Your task to perform on an android device: Go to Wikipedia Image 0: 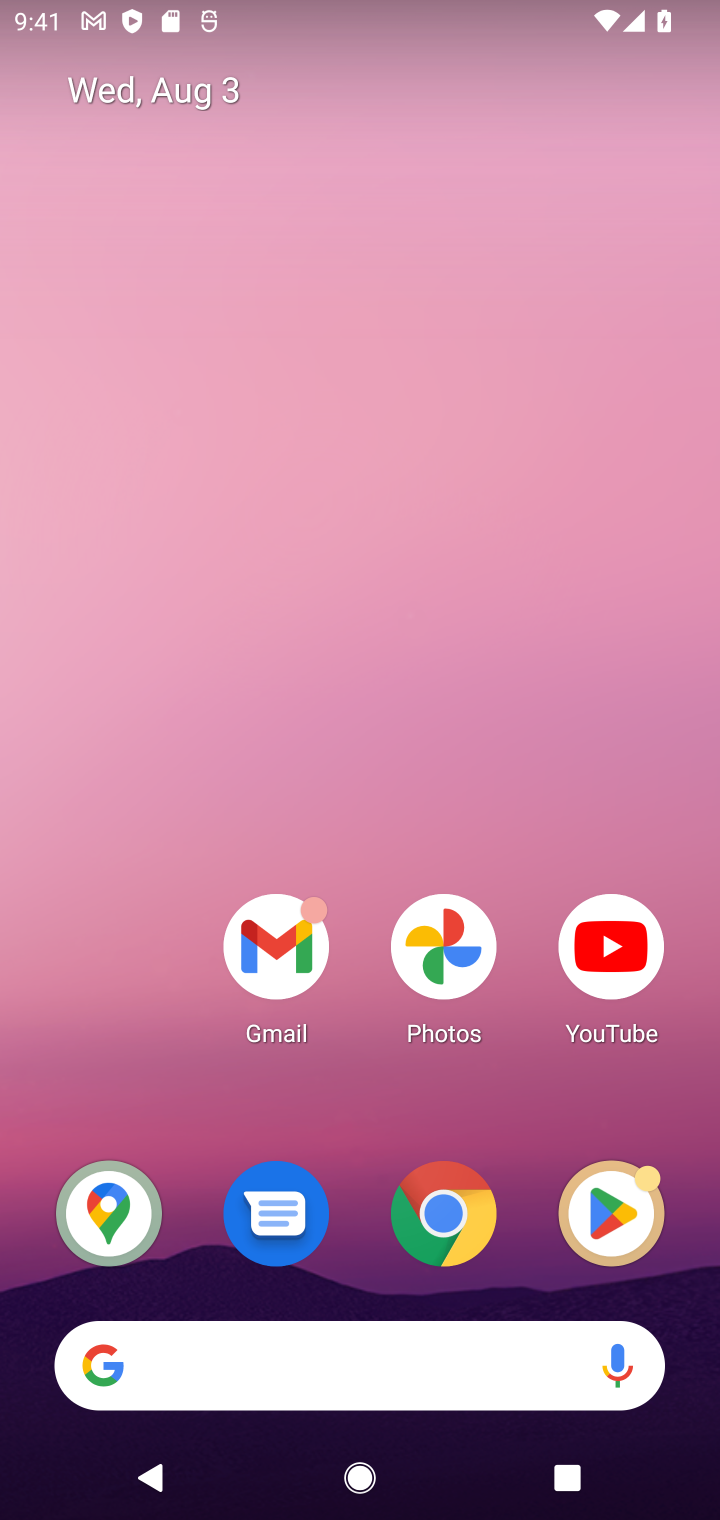
Step 0: drag from (409, 1127) to (413, 206)
Your task to perform on an android device: Go to Wikipedia Image 1: 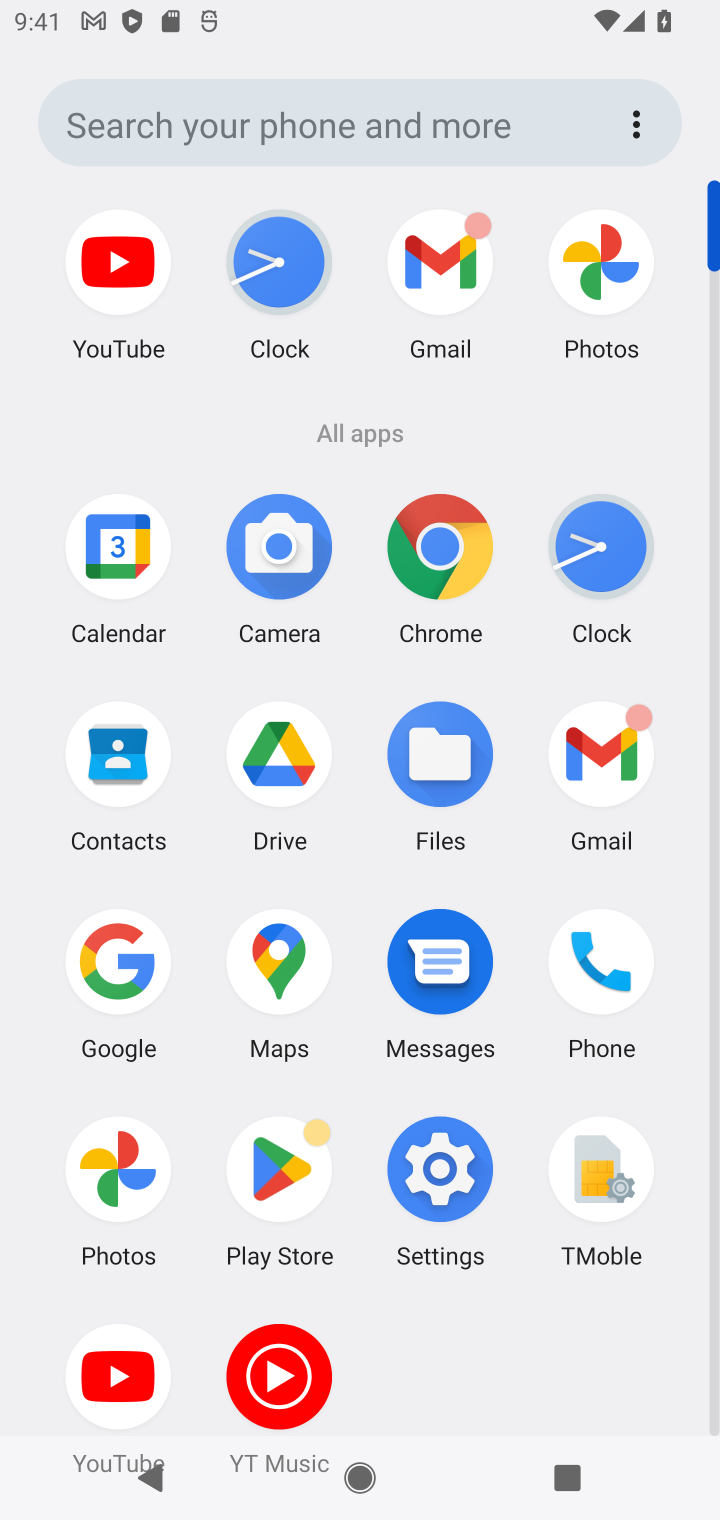
Step 1: click (453, 562)
Your task to perform on an android device: Go to Wikipedia Image 2: 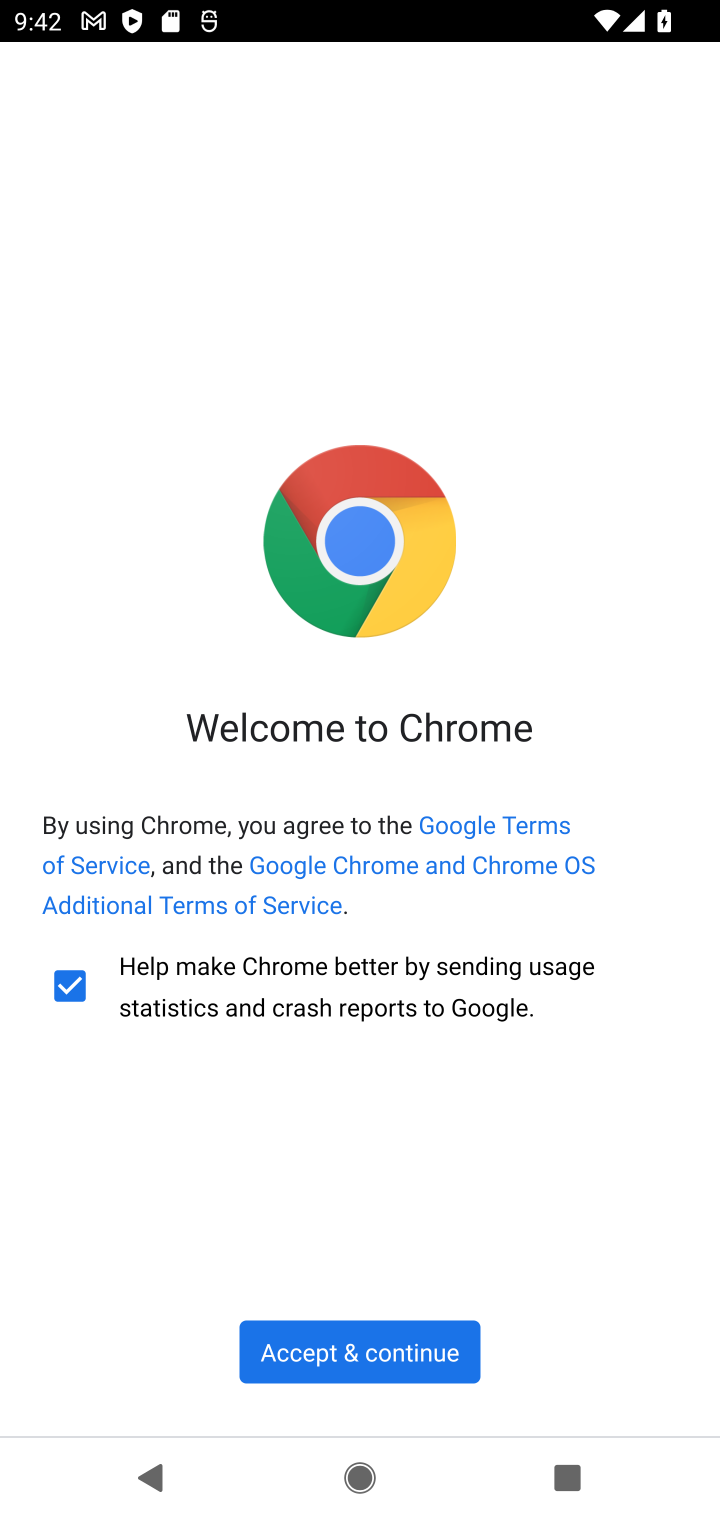
Step 2: click (330, 1326)
Your task to perform on an android device: Go to Wikipedia Image 3: 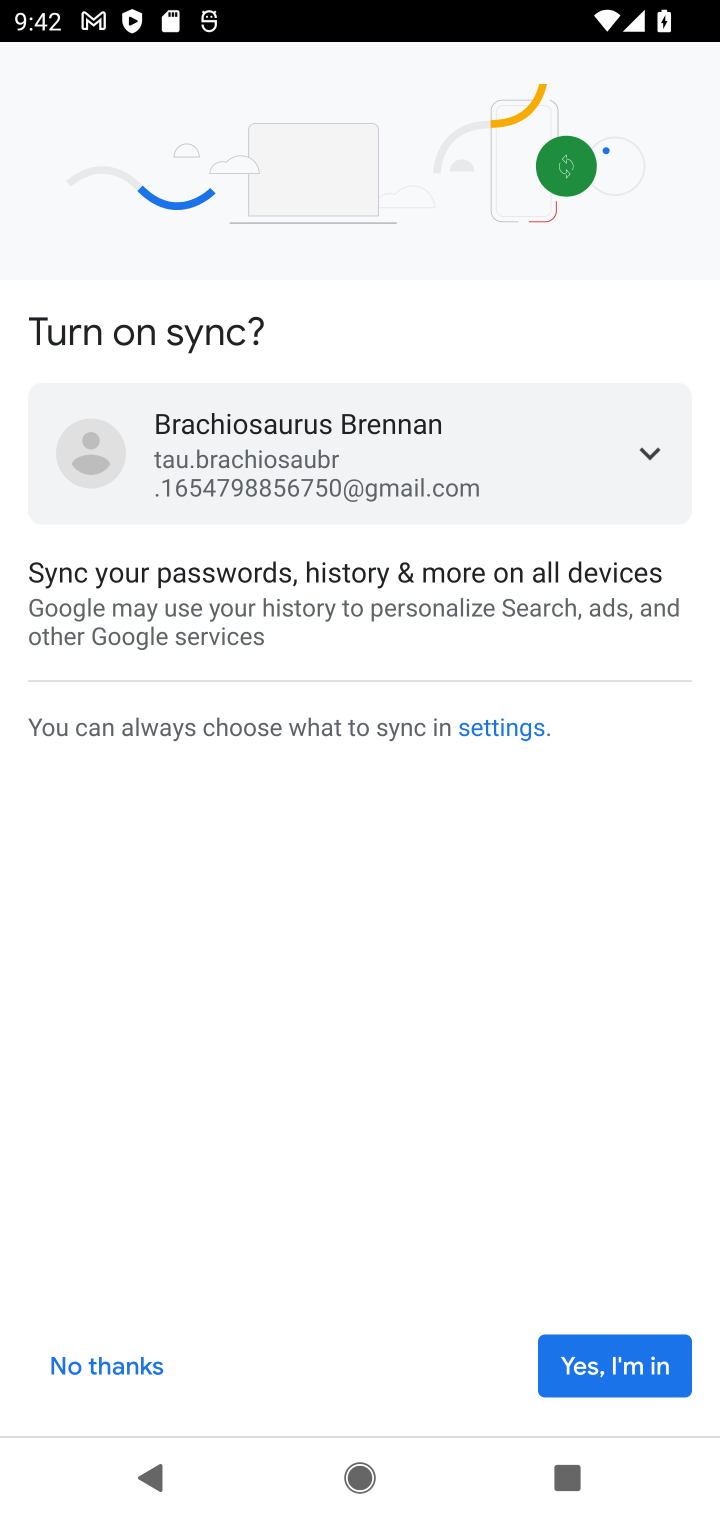
Step 3: click (610, 1372)
Your task to perform on an android device: Go to Wikipedia Image 4: 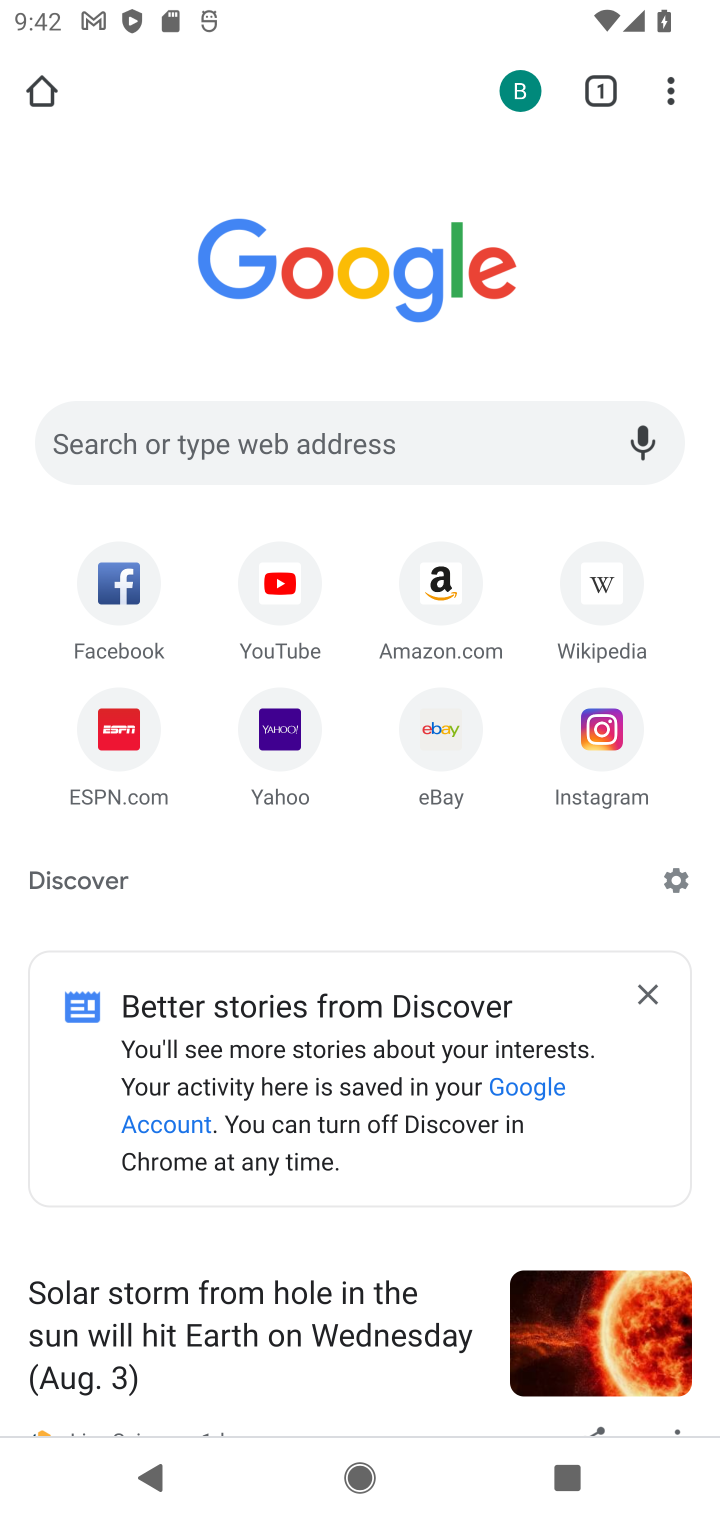
Step 4: click (604, 598)
Your task to perform on an android device: Go to Wikipedia Image 5: 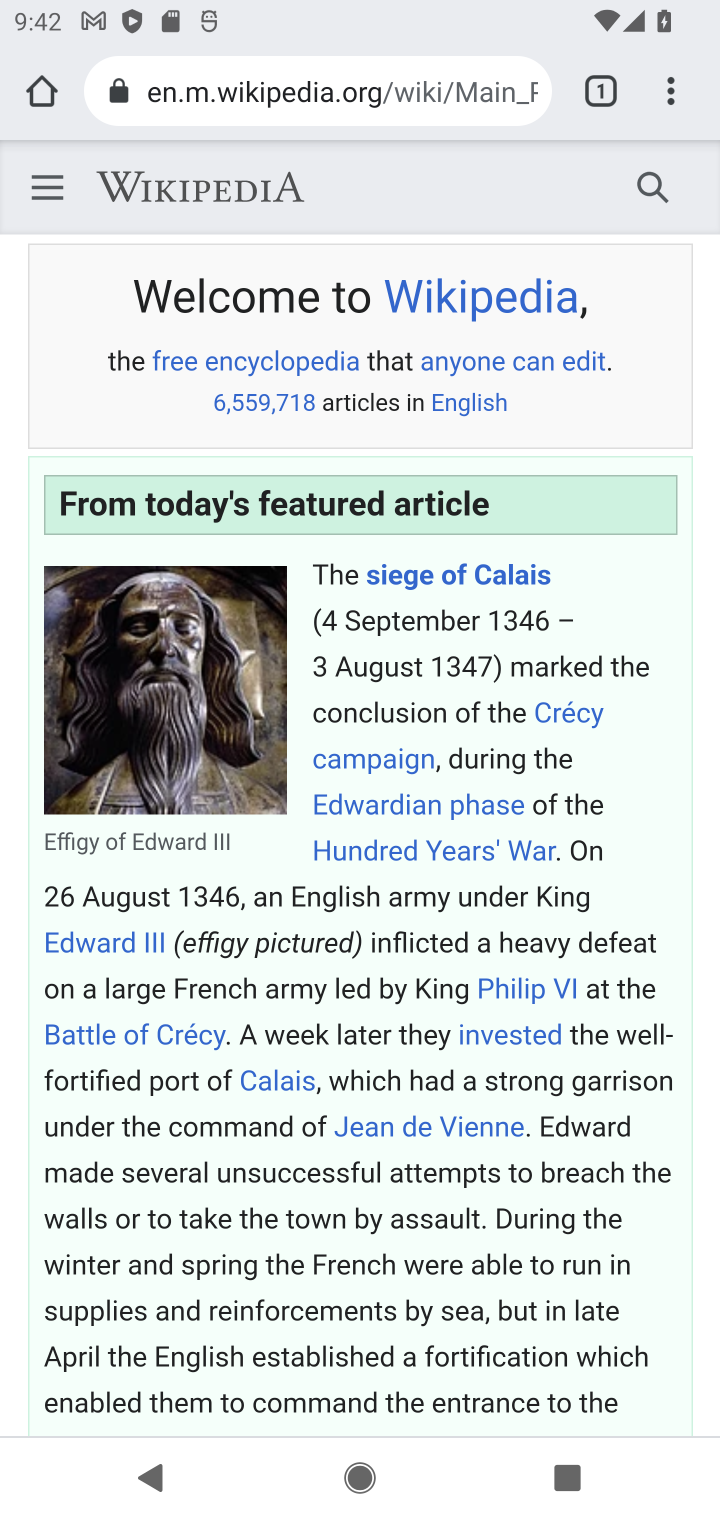
Step 5: task complete